Your task to perform on an android device: turn on bluetooth scan Image 0: 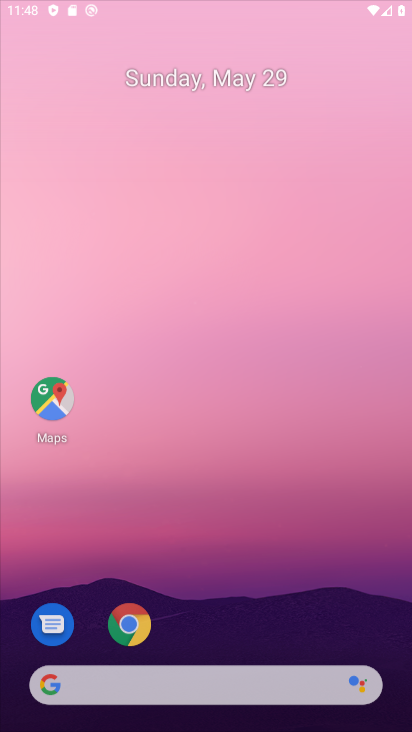
Step 0: click (169, 136)
Your task to perform on an android device: turn on bluetooth scan Image 1: 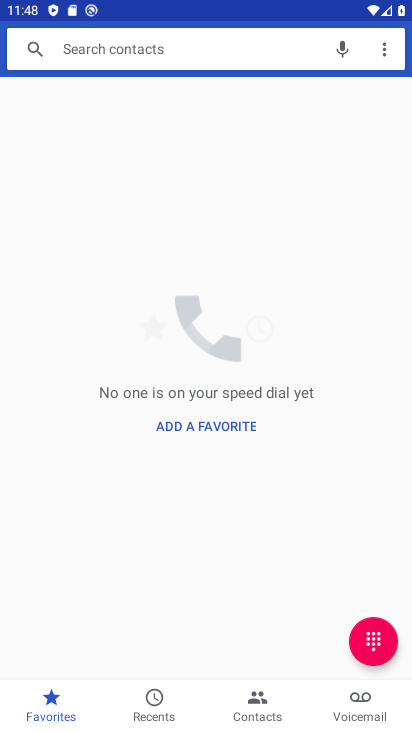
Step 1: press home button
Your task to perform on an android device: turn on bluetooth scan Image 2: 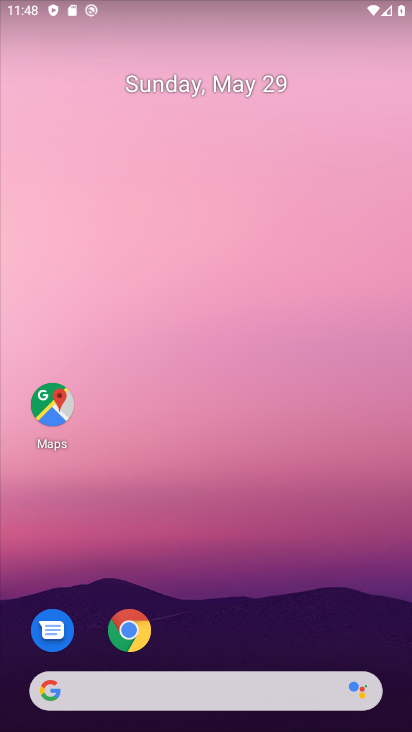
Step 2: drag from (277, 626) to (185, 108)
Your task to perform on an android device: turn on bluetooth scan Image 3: 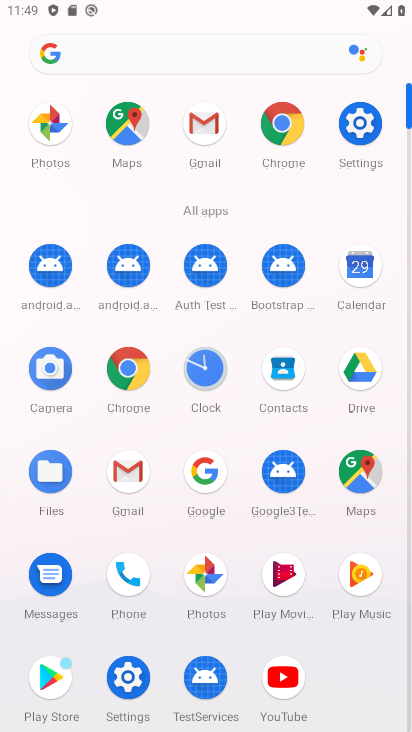
Step 3: click (131, 686)
Your task to perform on an android device: turn on bluetooth scan Image 4: 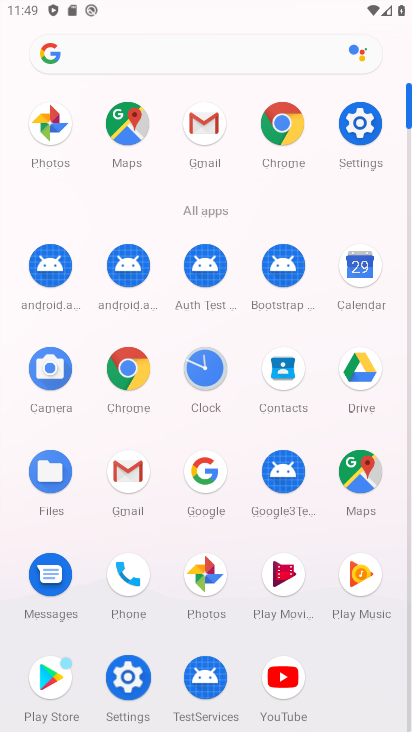
Step 4: click (131, 686)
Your task to perform on an android device: turn on bluetooth scan Image 5: 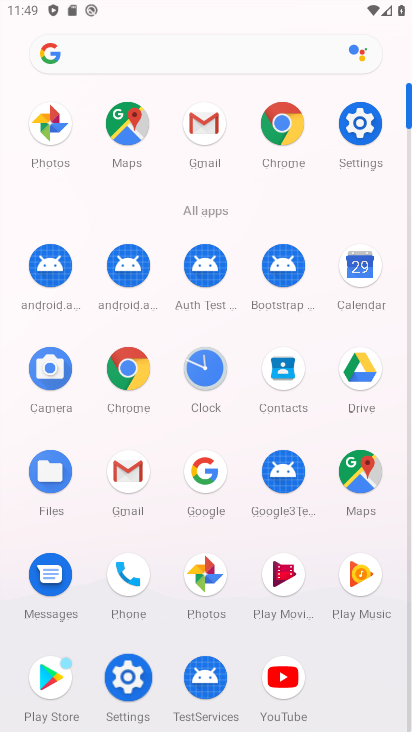
Step 5: click (131, 686)
Your task to perform on an android device: turn on bluetooth scan Image 6: 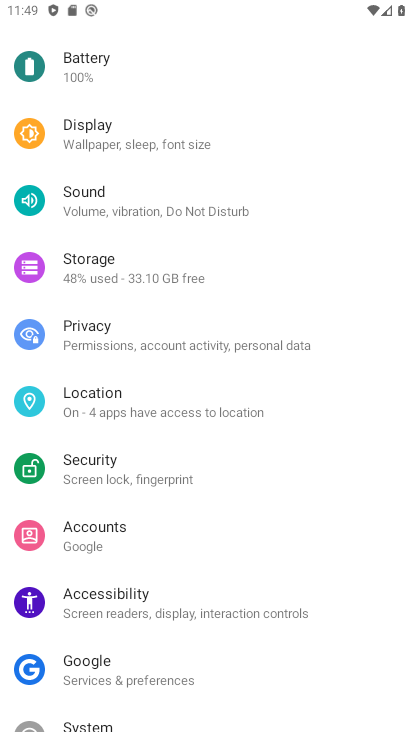
Step 6: click (130, 686)
Your task to perform on an android device: turn on bluetooth scan Image 7: 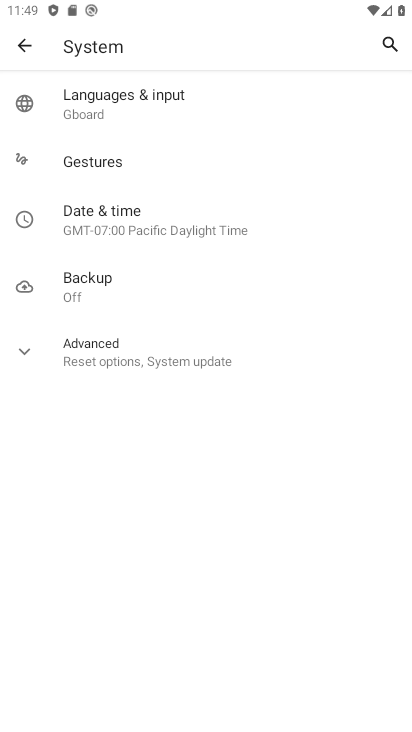
Step 7: click (21, 47)
Your task to perform on an android device: turn on bluetooth scan Image 8: 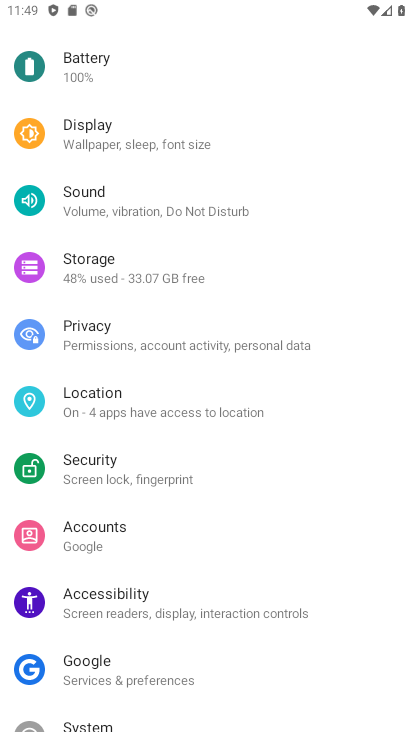
Step 8: click (94, 395)
Your task to perform on an android device: turn on bluetooth scan Image 9: 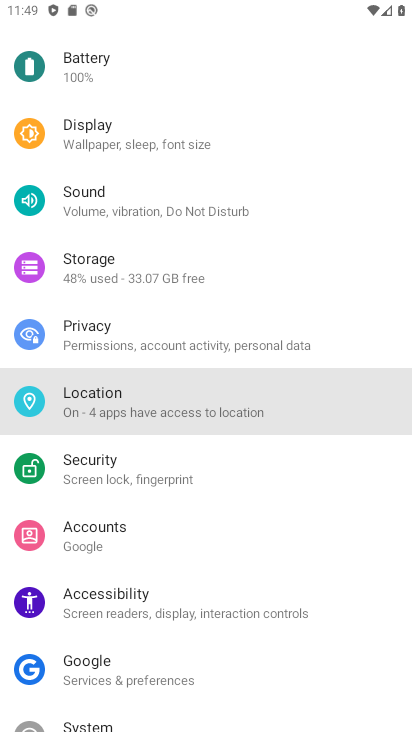
Step 9: click (94, 395)
Your task to perform on an android device: turn on bluetooth scan Image 10: 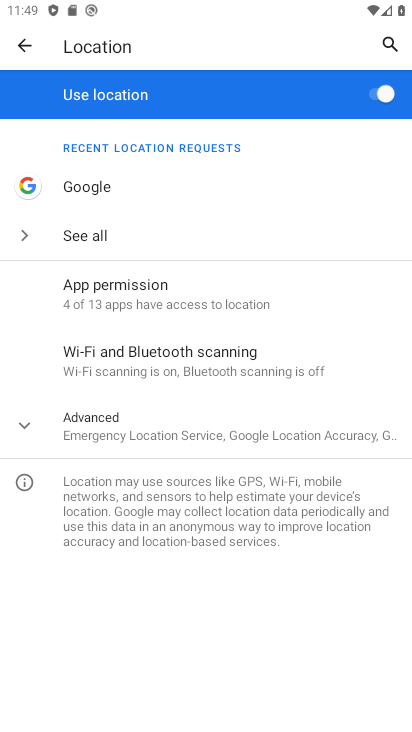
Step 10: click (175, 363)
Your task to perform on an android device: turn on bluetooth scan Image 11: 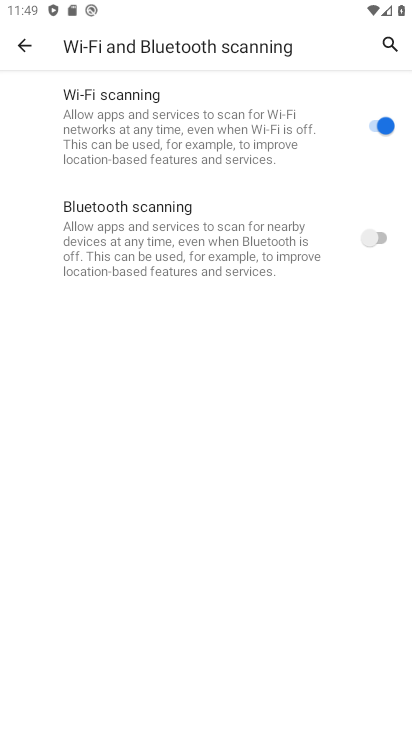
Step 11: click (371, 236)
Your task to perform on an android device: turn on bluetooth scan Image 12: 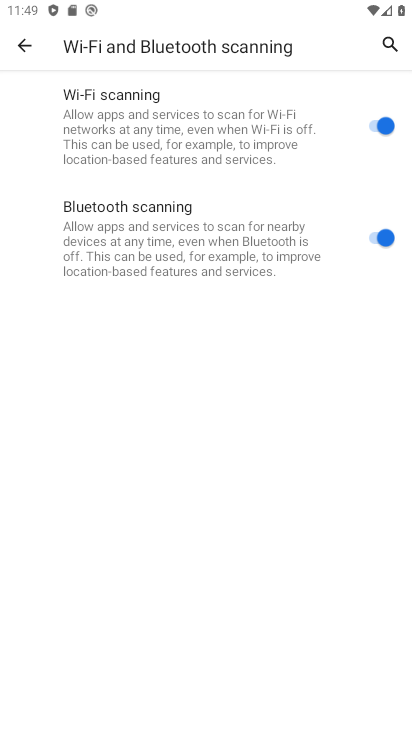
Step 12: task complete